Your task to perform on an android device: turn on airplane mode Image 0: 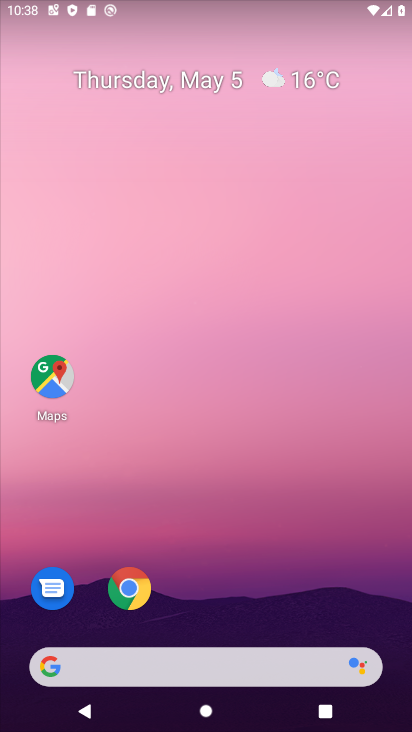
Step 0: click (173, 133)
Your task to perform on an android device: turn on airplane mode Image 1: 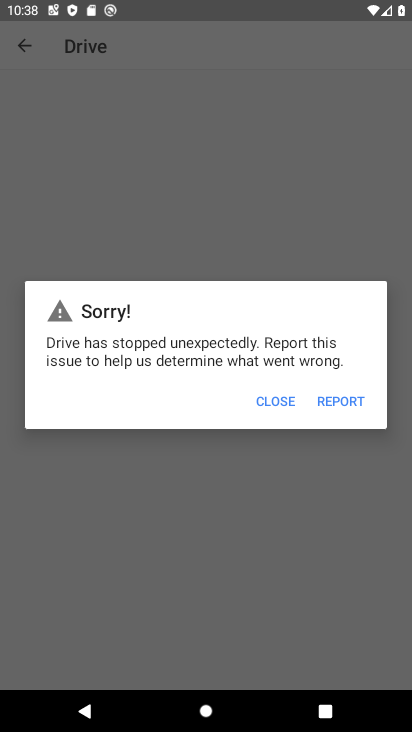
Step 1: press home button
Your task to perform on an android device: turn on airplane mode Image 2: 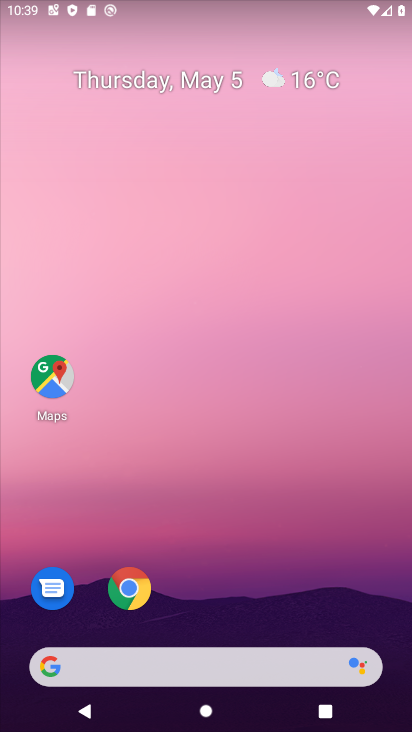
Step 2: drag from (313, 4) to (383, 487)
Your task to perform on an android device: turn on airplane mode Image 3: 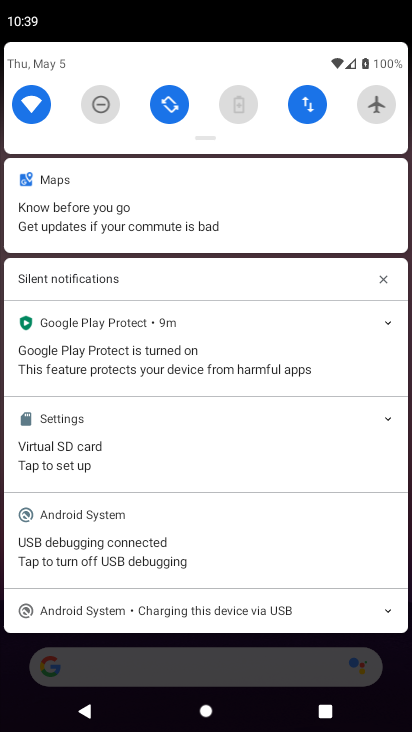
Step 3: drag from (273, 114) to (267, 453)
Your task to perform on an android device: turn on airplane mode Image 4: 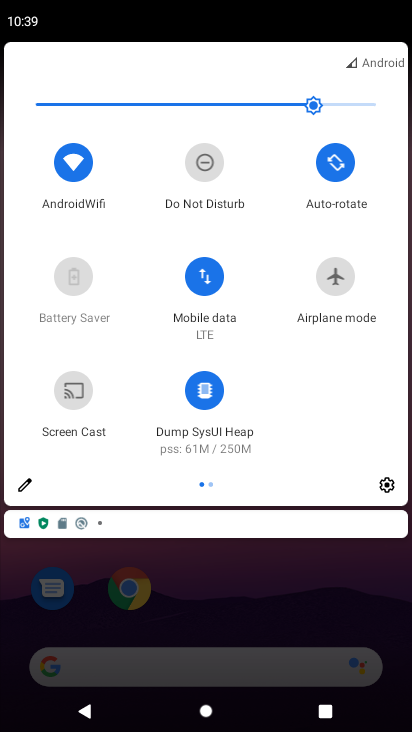
Step 4: click (338, 285)
Your task to perform on an android device: turn on airplane mode Image 5: 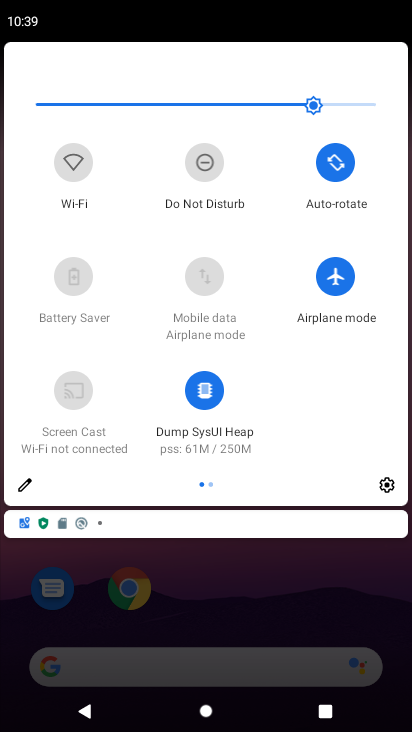
Step 5: task complete